Your task to perform on an android device: Show me productivity apps on the Play Store Image 0: 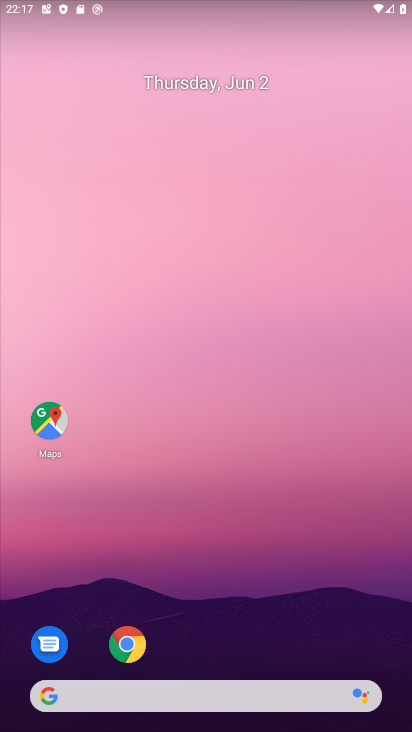
Step 0: drag from (212, 663) to (221, 298)
Your task to perform on an android device: Show me productivity apps on the Play Store Image 1: 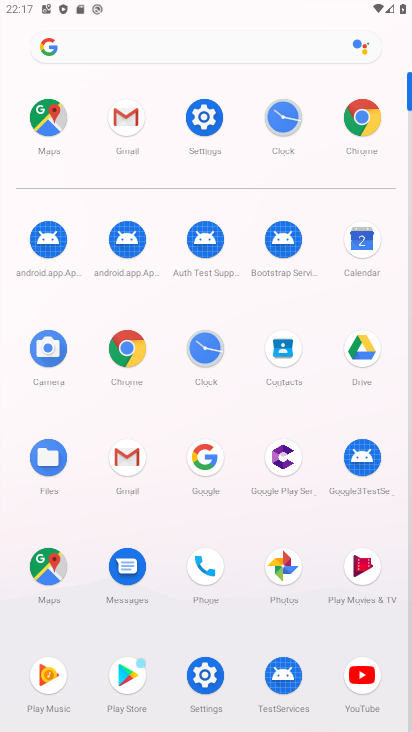
Step 1: click (124, 680)
Your task to perform on an android device: Show me productivity apps on the Play Store Image 2: 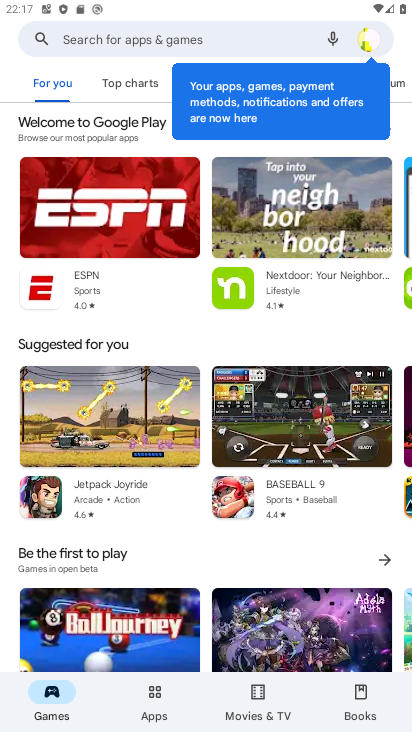
Step 2: click (154, 696)
Your task to perform on an android device: Show me productivity apps on the Play Store Image 3: 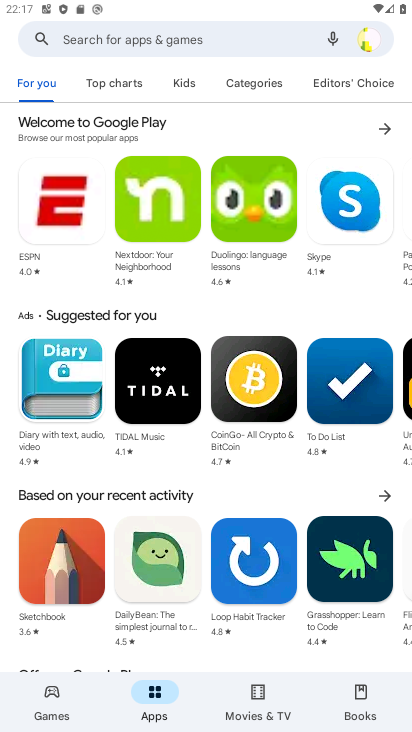
Step 3: drag from (336, 85) to (190, 86)
Your task to perform on an android device: Show me productivity apps on the Play Store Image 4: 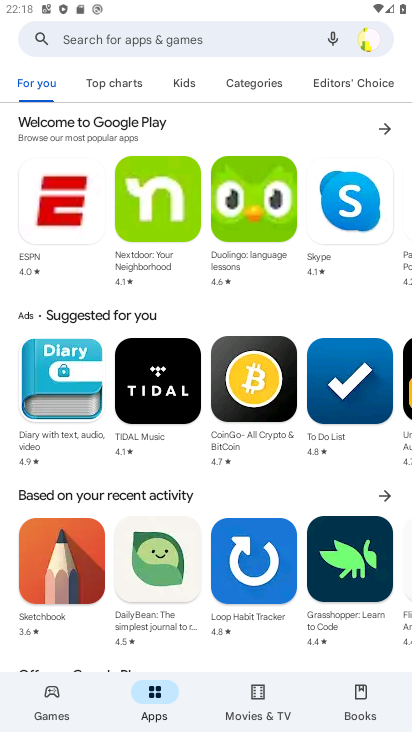
Step 4: click (252, 81)
Your task to perform on an android device: Show me productivity apps on the Play Store Image 5: 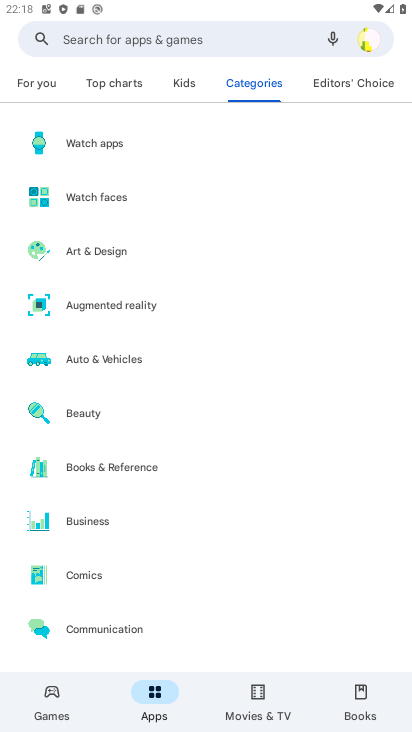
Step 5: drag from (72, 620) to (91, 277)
Your task to perform on an android device: Show me productivity apps on the Play Store Image 6: 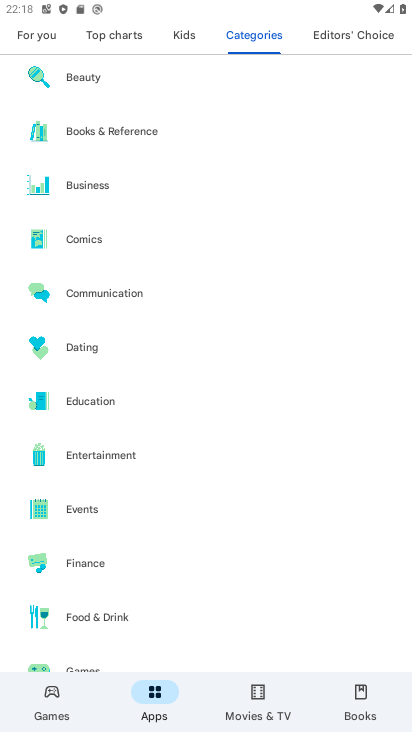
Step 6: drag from (90, 599) to (103, 302)
Your task to perform on an android device: Show me productivity apps on the Play Store Image 7: 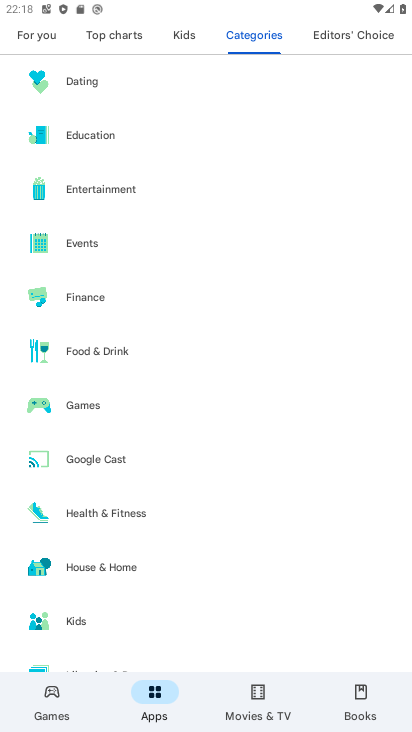
Step 7: drag from (98, 607) to (120, 279)
Your task to perform on an android device: Show me productivity apps on the Play Store Image 8: 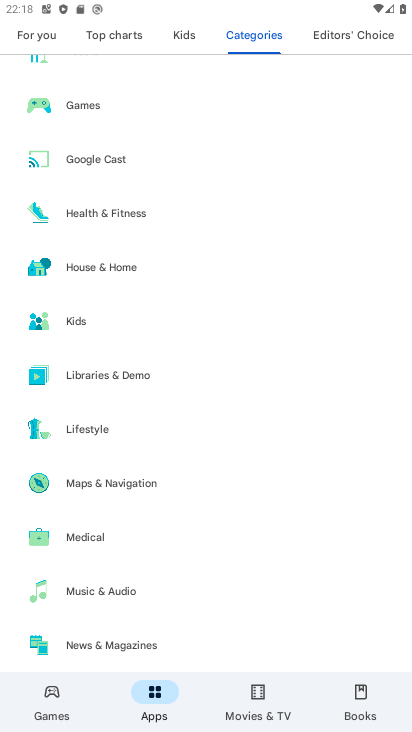
Step 8: drag from (104, 616) to (113, 243)
Your task to perform on an android device: Show me productivity apps on the Play Store Image 9: 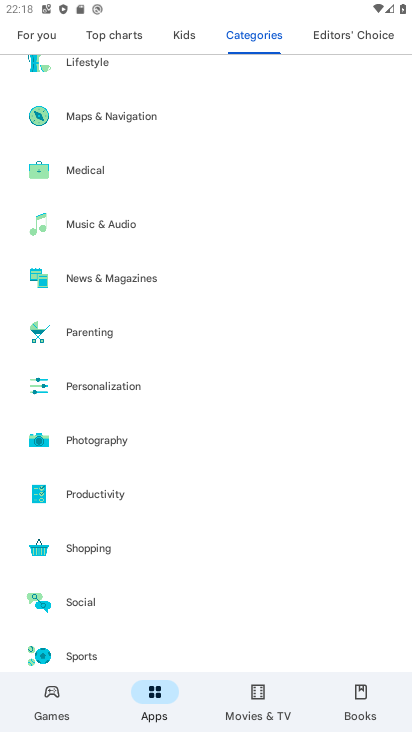
Step 9: drag from (136, 619) to (117, 244)
Your task to perform on an android device: Show me productivity apps on the Play Store Image 10: 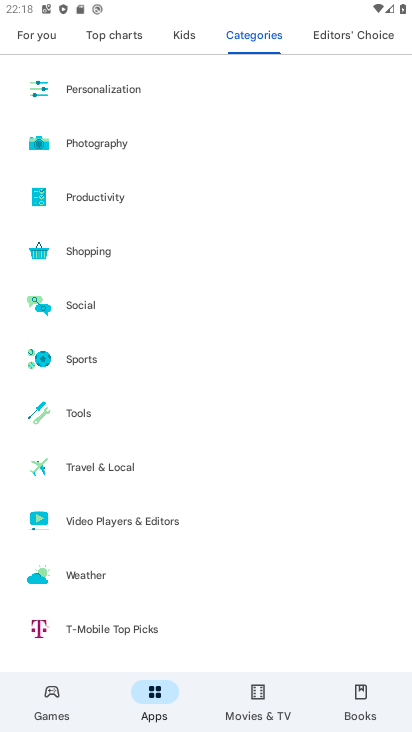
Step 10: click (110, 202)
Your task to perform on an android device: Show me productivity apps on the Play Store Image 11: 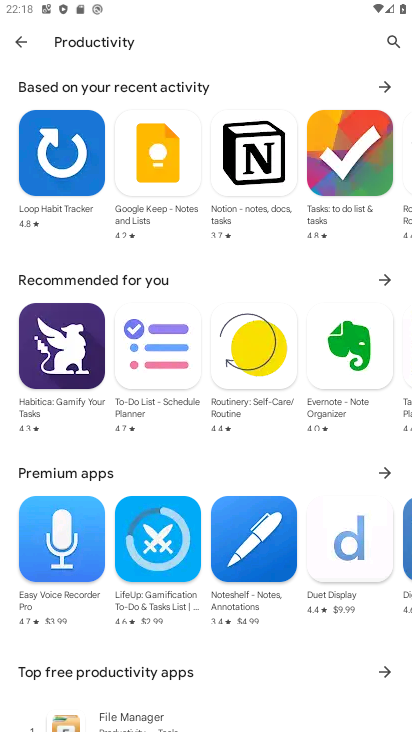
Step 11: task complete